Your task to perform on an android device: make emails show in primary in the gmail app Image 0: 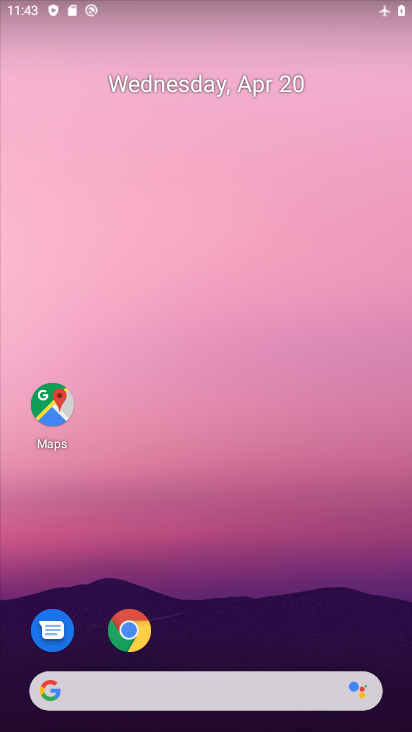
Step 0: click (411, 59)
Your task to perform on an android device: make emails show in primary in the gmail app Image 1: 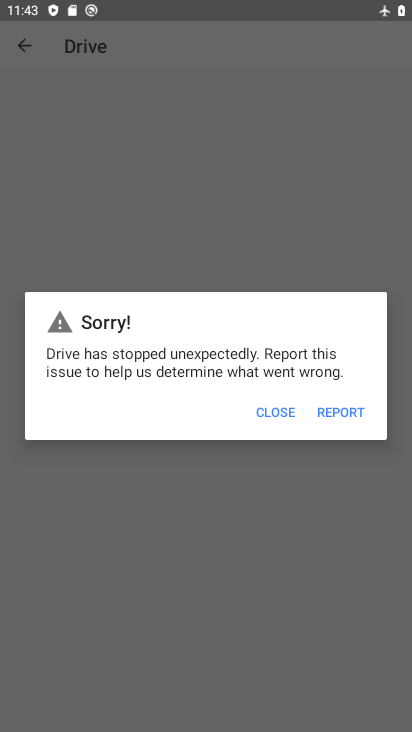
Step 1: press home button
Your task to perform on an android device: make emails show in primary in the gmail app Image 2: 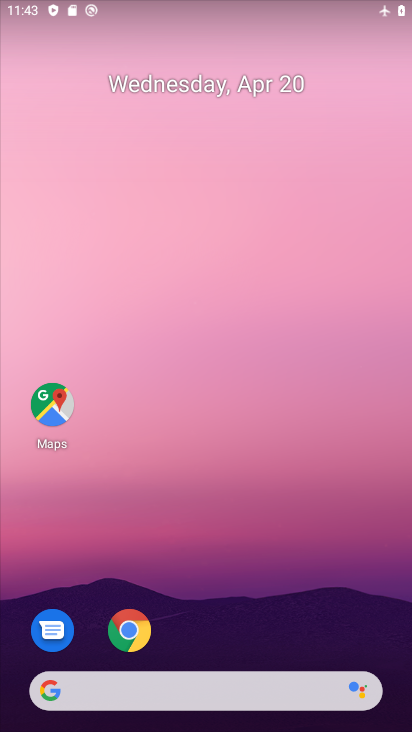
Step 2: drag from (257, 618) to (317, 45)
Your task to perform on an android device: make emails show in primary in the gmail app Image 3: 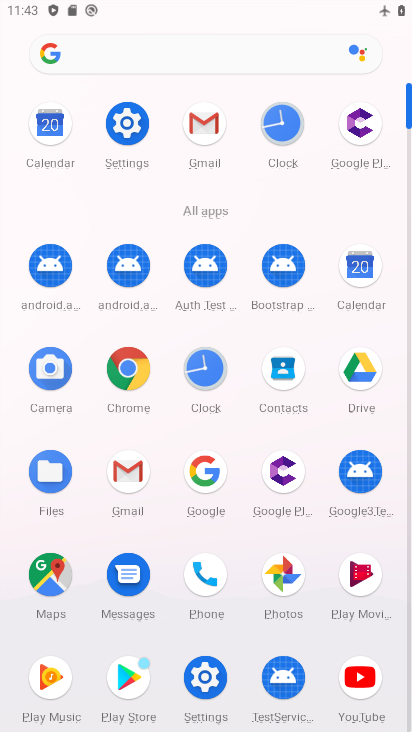
Step 3: click (206, 136)
Your task to perform on an android device: make emails show in primary in the gmail app Image 4: 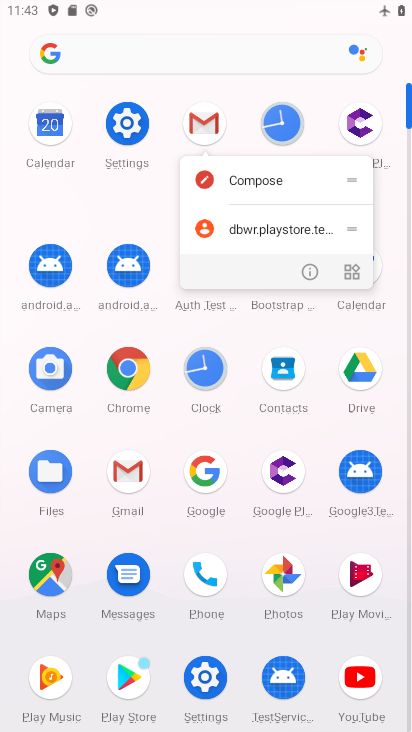
Step 4: click (206, 136)
Your task to perform on an android device: make emails show in primary in the gmail app Image 5: 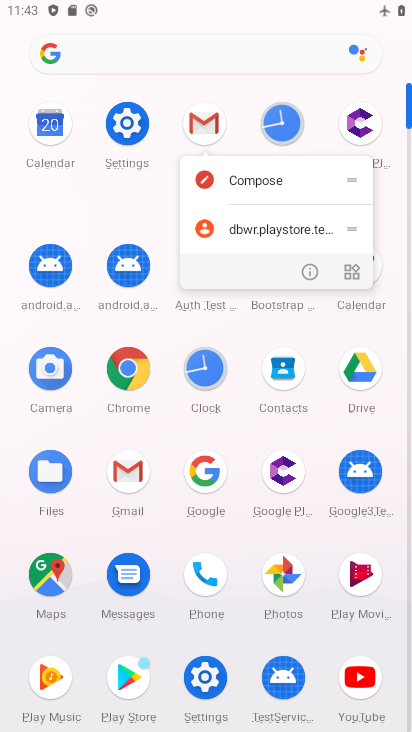
Step 5: click (206, 136)
Your task to perform on an android device: make emails show in primary in the gmail app Image 6: 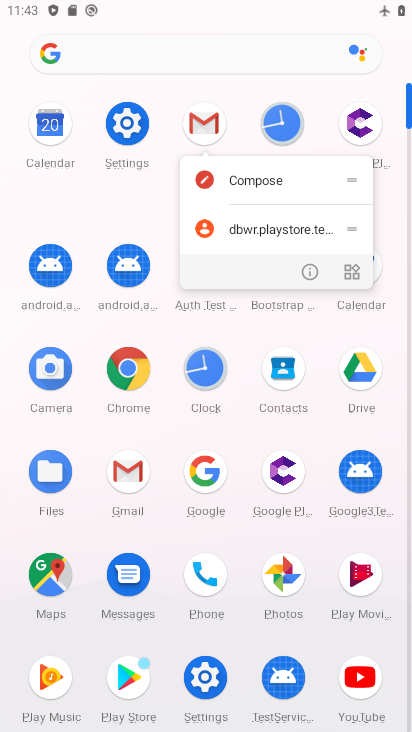
Step 6: click (206, 123)
Your task to perform on an android device: make emails show in primary in the gmail app Image 7: 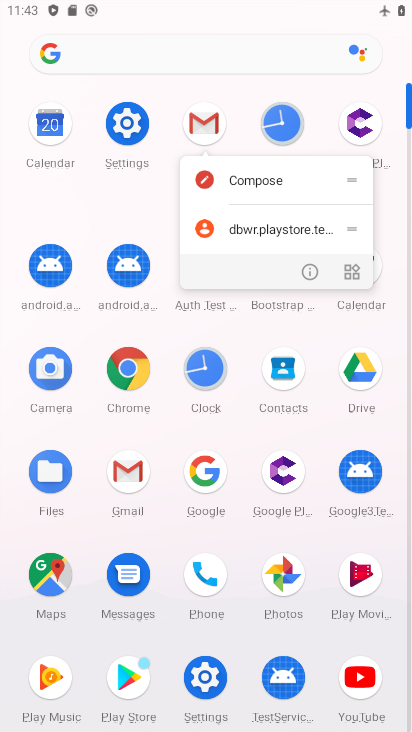
Step 7: click (206, 123)
Your task to perform on an android device: make emails show in primary in the gmail app Image 8: 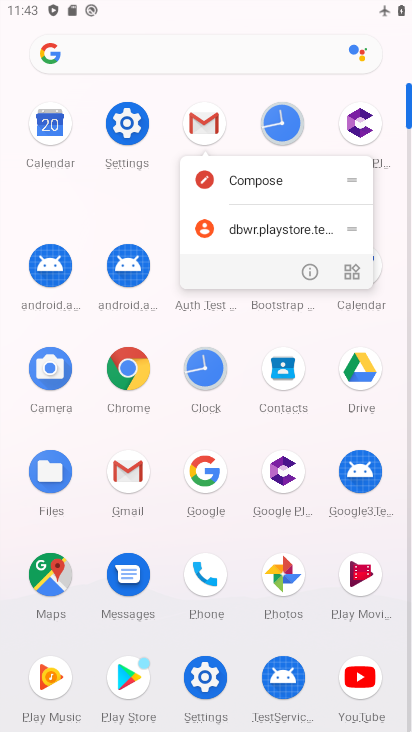
Step 8: click (206, 123)
Your task to perform on an android device: make emails show in primary in the gmail app Image 9: 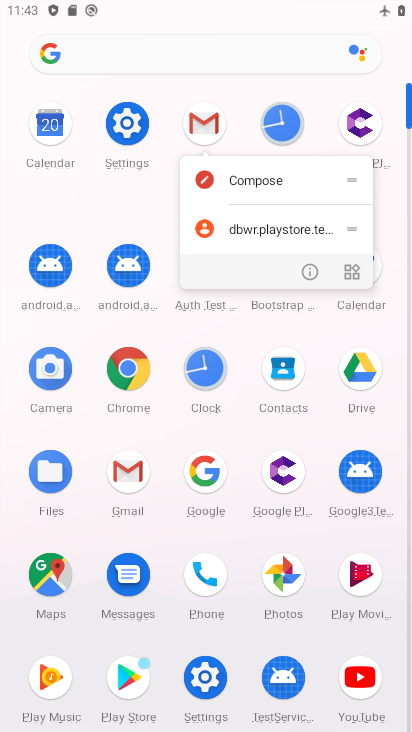
Step 9: click (206, 123)
Your task to perform on an android device: make emails show in primary in the gmail app Image 10: 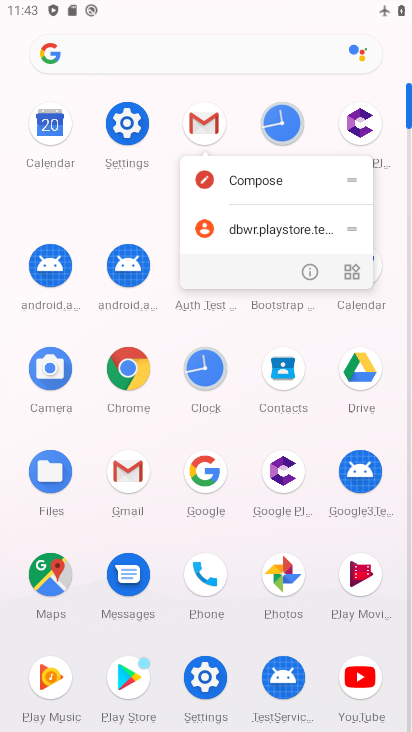
Step 10: click (206, 123)
Your task to perform on an android device: make emails show in primary in the gmail app Image 11: 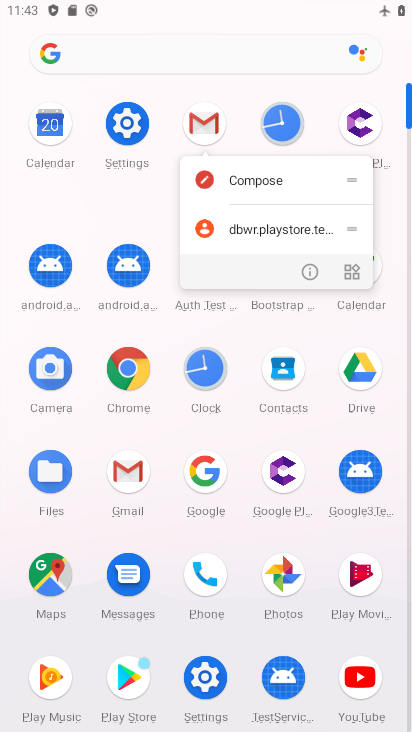
Step 11: click (206, 123)
Your task to perform on an android device: make emails show in primary in the gmail app Image 12: 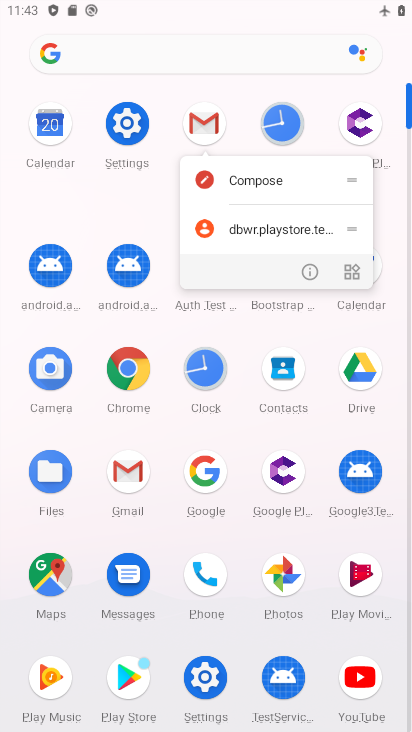
Step 12: click (206, 123)
Your task to perform on an android device: make emails show in primary in the gmail app Image 13: 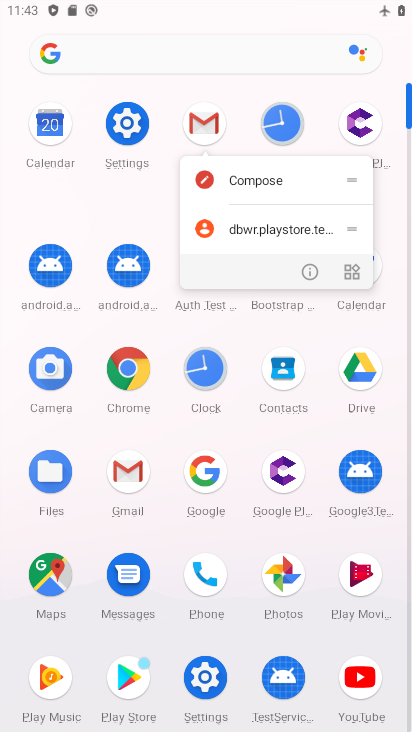
Step 13: click (206, 123)
Your task to perform on an android device: make emails show in primary in the gmail app Image 14: 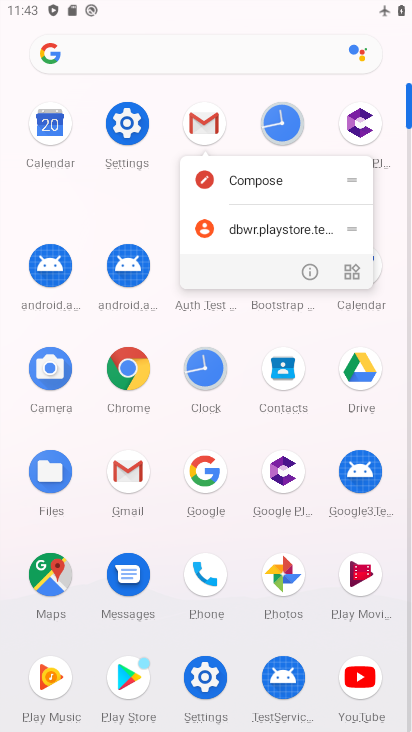
Step 14: click (206, 123)
Your task to perform on an android device: make emails show in primary in the gmail app Image 15: 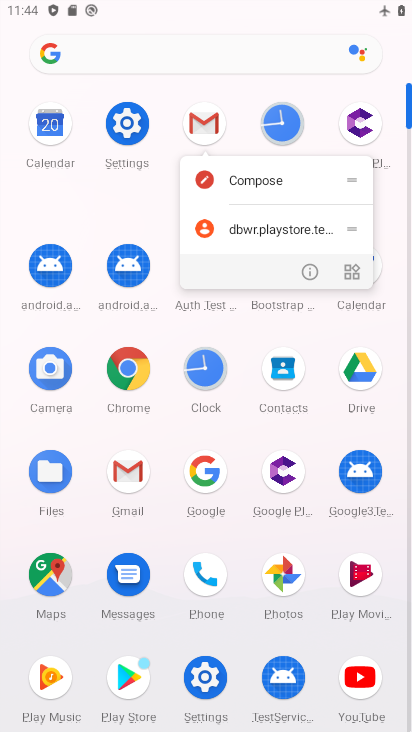
Step 15: click (206, 123)
Your task to perform on an android device: make emails show in primary in the gmail app Image 16: 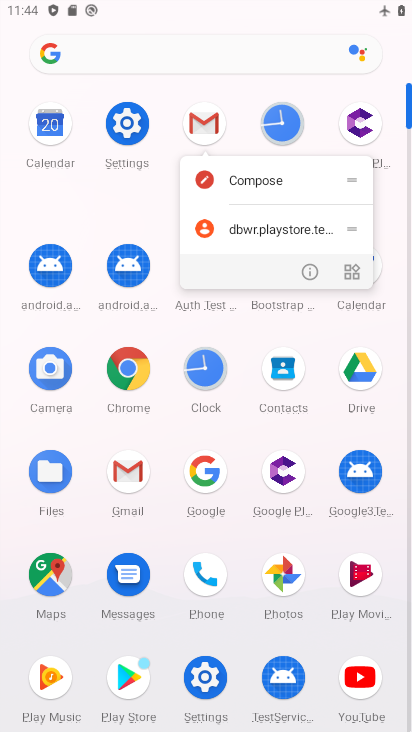
Step 16: click (206, 123)
Your task to perform on an android device: make emails show in primary in the gmail app Image 17: 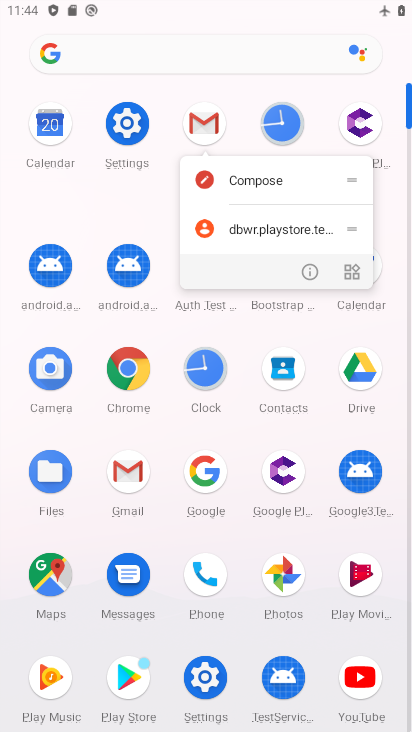
Step 17: click (206, 123)
Your task to perform on an android device: make emails show in primary in the gmail app Image 18: 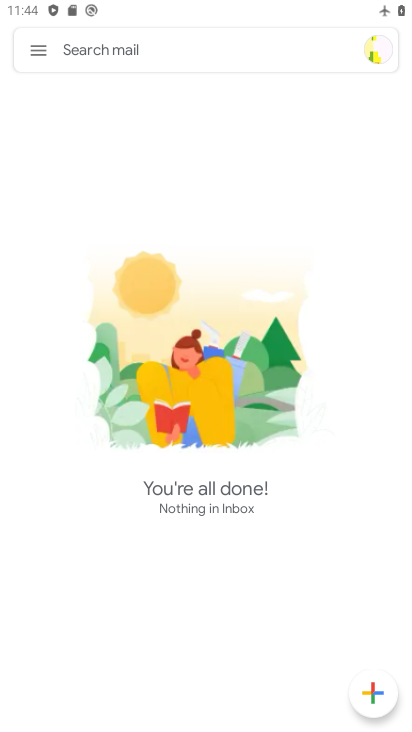
Step 18: click (46, 50)
Your task to perform on an android device: make emails show in primary in the gmail app Image 19: 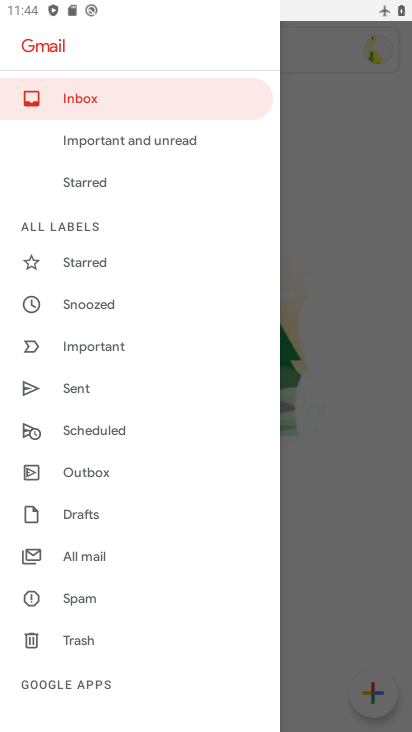
Step 19: drag from (165, 597) to (190, 208)
Your task to perform on an android device: make emails show in primary in the gmail app Image 20: 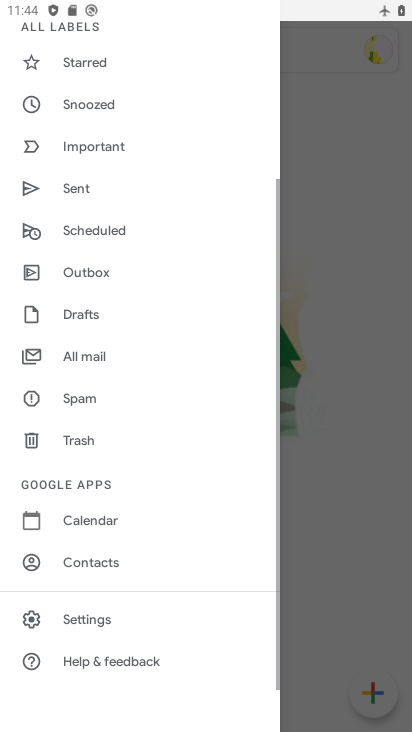
Step 20: click (90, 614)
Your task to perform on an android device: make emails show in primary in the gmail app Image 21: 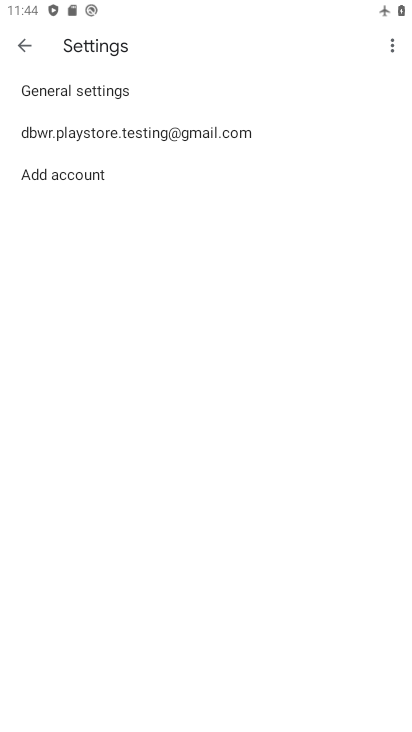
Step 21: click (108, 139)
Your task to perform on an android device: make emails show in primary in the gmail app Image 22: 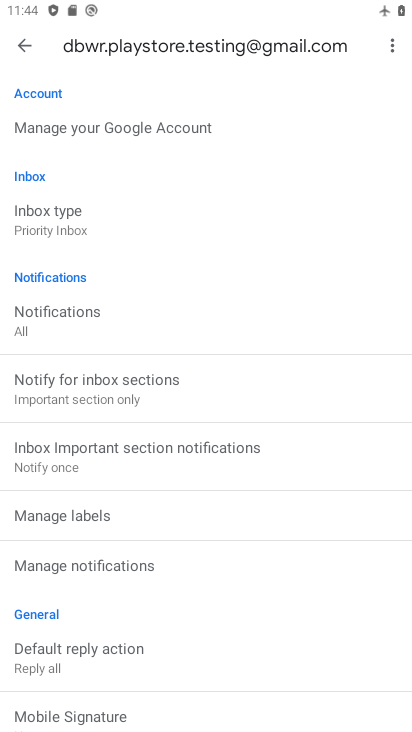
Step 22: click (77, 237)
Your task to perform on an android device: make emails show in primary in the gmail app Image 23: 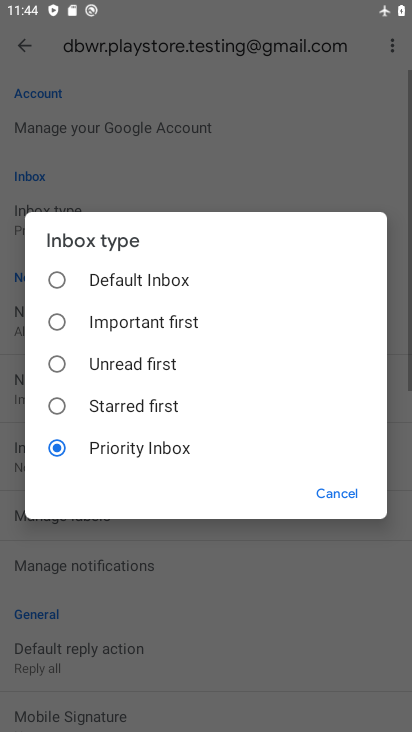
Step 23: click (82, 273)
Your task to perform on an android device: make emails show in primary in the gmail app Image 24: 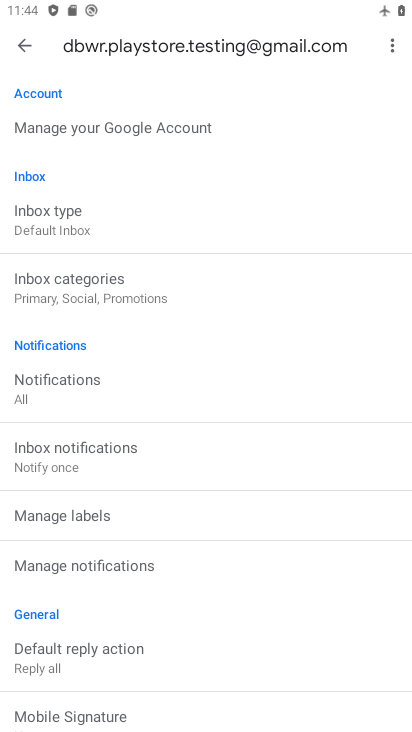
Step 24: task complete